Your task to perform on an android device: turn pop-ups off in chrome Image 0: 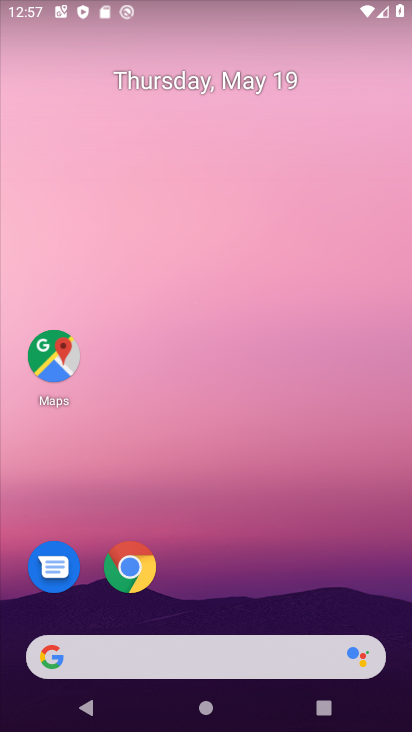
Step 0: click (118, 561)
Your task to perform on an android device: turn pop-ups off in chrome Image 1: 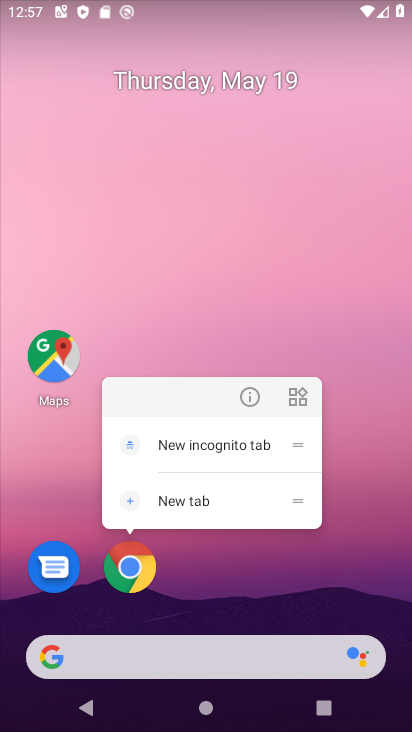
Step 1: click (136, 561)
Your task to perform on an android device: turn pop-ups off in chrome Image 2: 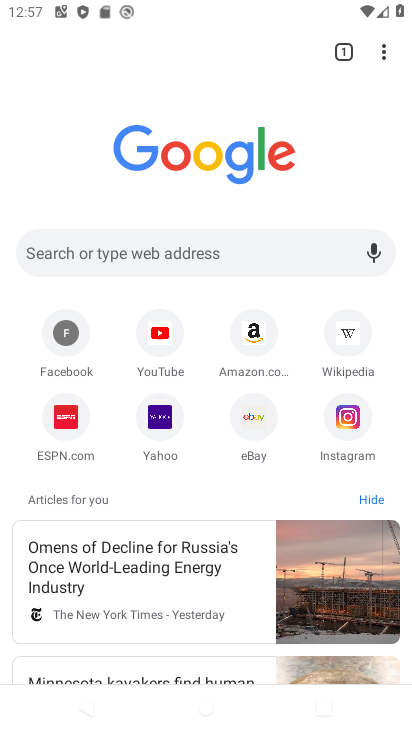
Step 2: click (389, 49)
Your task to perform on an android device: turn pop-ups off in chrome Image 3: 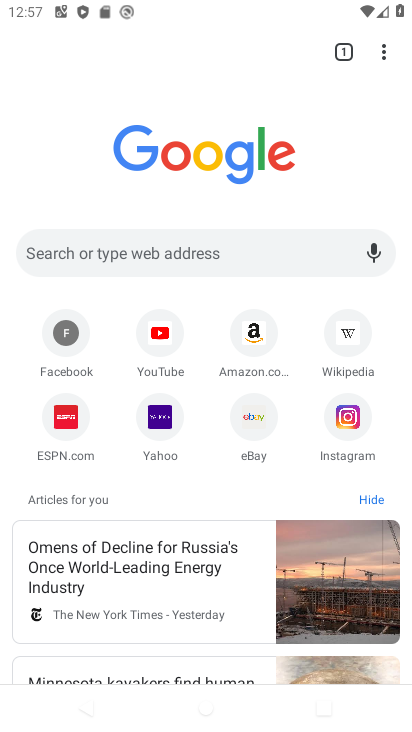
Step 3: click (385, 62)
Your task to perform on an android device: turn pop-ups off in chrome Image 4: 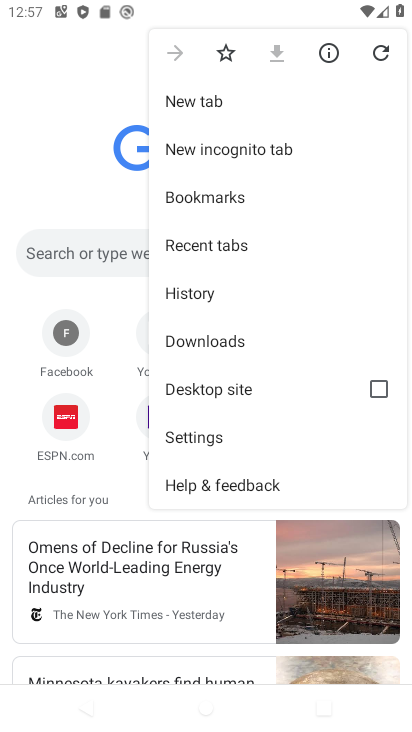
Step 4: click (179, 439)
Your task to perform on an android device: turn pop-ups off in chrome Image 5: 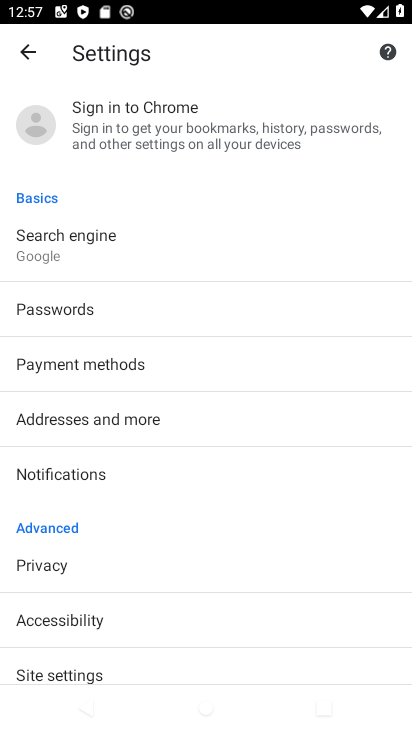
Step 5: drag from (19, 498) to (170, 229)
Your task to perform on an android device: turn pop-ups off in chrome Image 6: 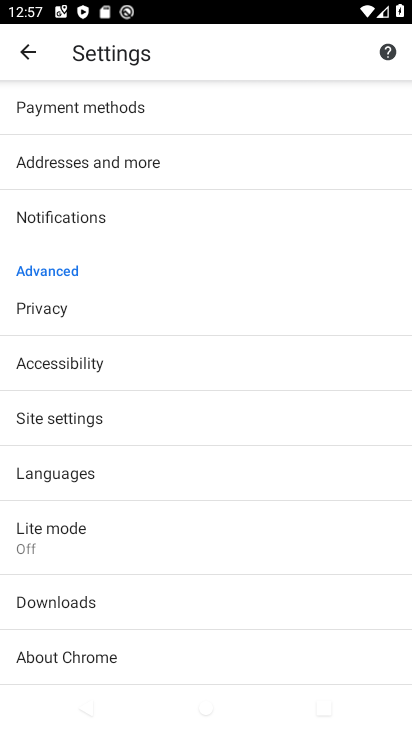
Step 6: click (111, 415)
Your task to perform on an android device: turn pop-ups off in chrome Image 7: 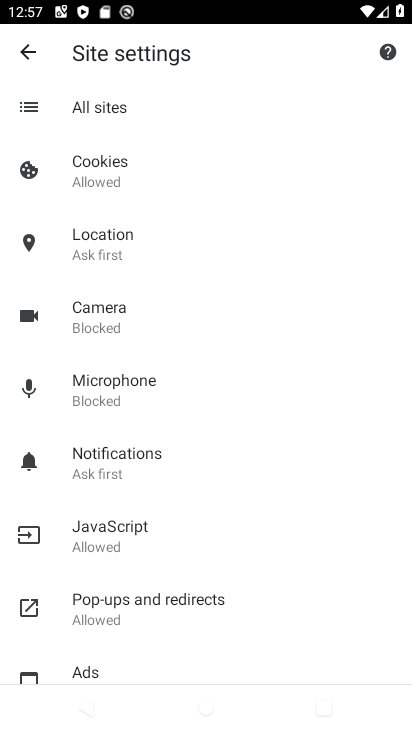
Step 7: click (149, 603)
Your task to perform on an android device: turn pop-ups off in chrome Image 8: 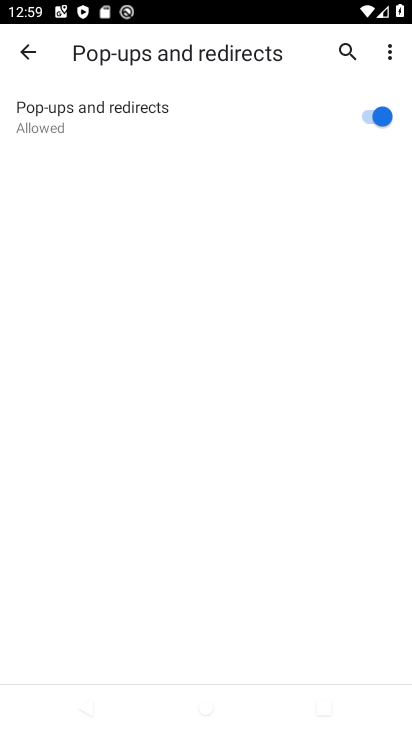
Step 8: click (389, 126)
Your task to perform on an android device: turn pop-ups off in chrome Image 9: 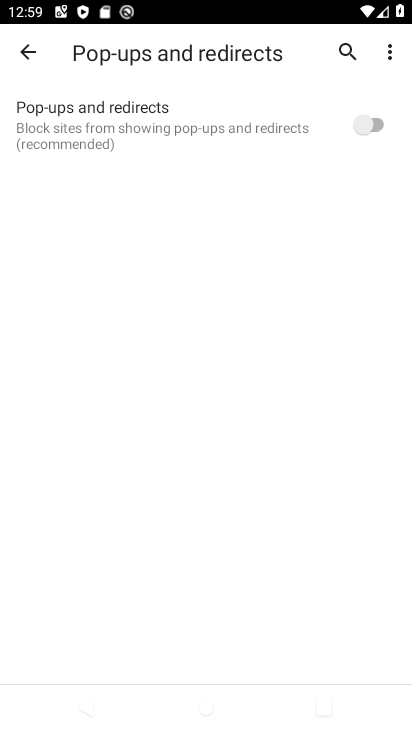
Step 9: task complete